Your task to perform on an android device: read, delete, or share a saved page in the chrome app Image 0: 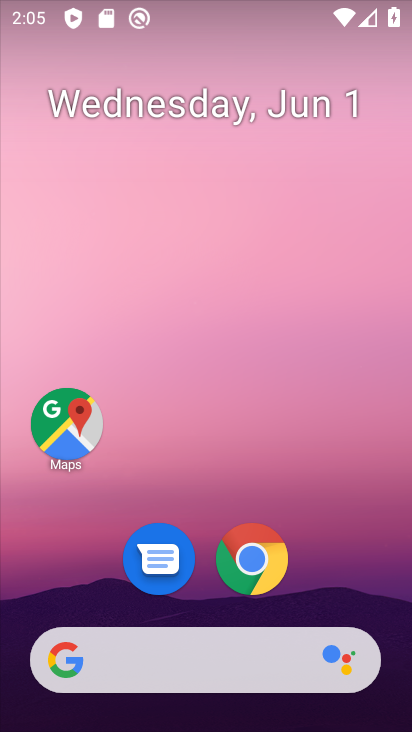
Step 0: click (270, 548)
Your task to perform on an android device: read, delete, or share a saved page in the chrome app Image 1: 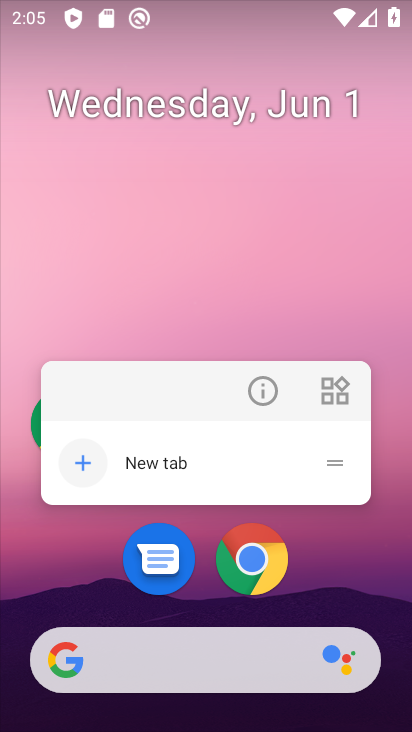
Step 1: click (237, 561)
Your task to perform on an android device: read, delete, or share a saved page in the chrome app Image 2: 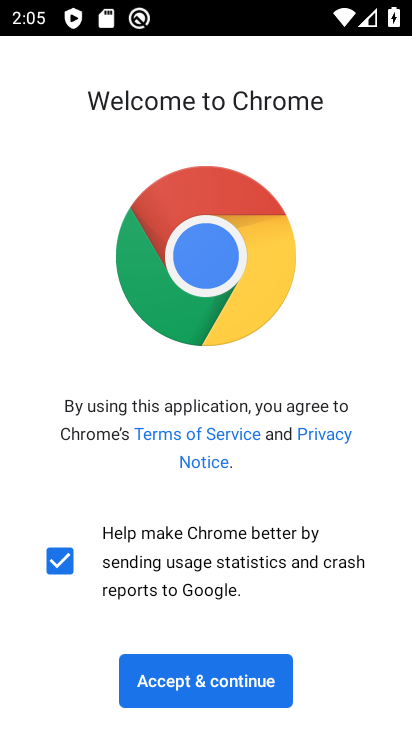
Step 2: click (207, 677)
Your task to perform on an android device: read, delete, or share a saved page in the chrome app Image 3: 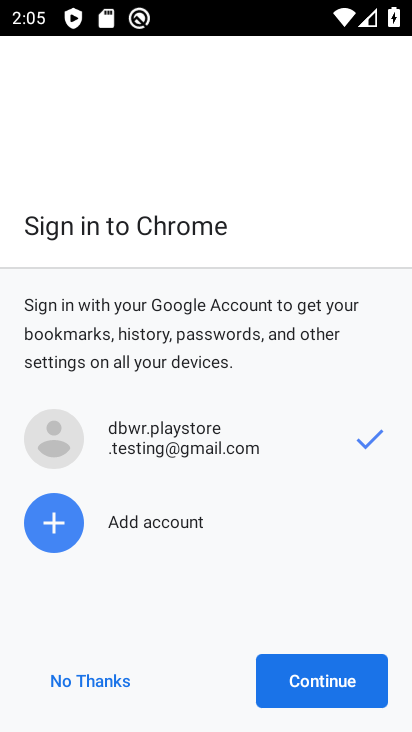
Step 3: click (292, 671)
Your task to perform on an android device: read, delete, or share a saved page in the chrome app Image 4: 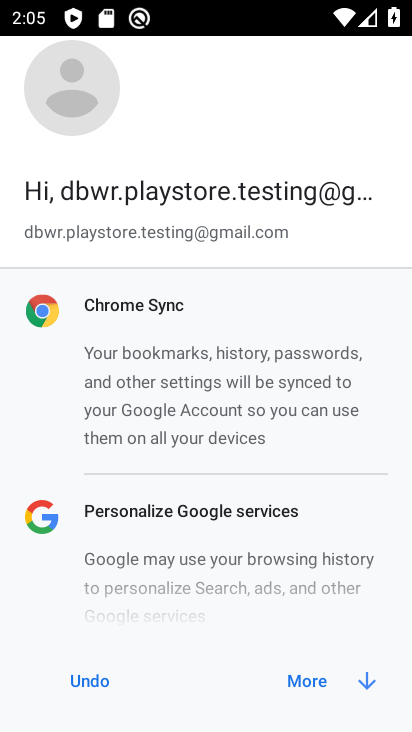
Step 4: click (302, 681)
Your task to perform on an android device: read, delete, or share a saved page in the chrome app Image 5: 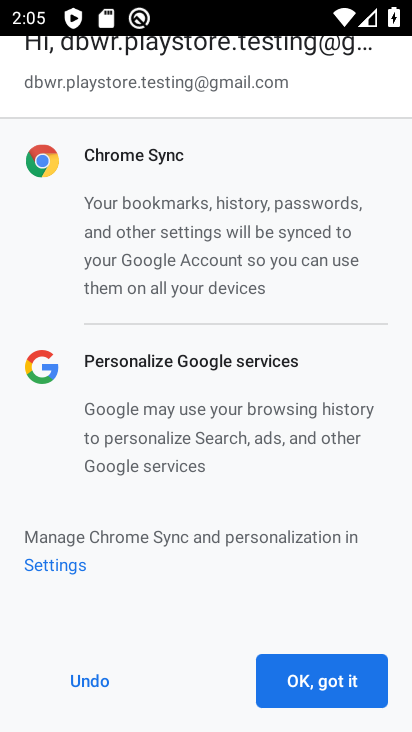
Step 5: click (302, 681)
Your task to perform on an android device: read, delete, or share a saved page in the chrome app Image 6: 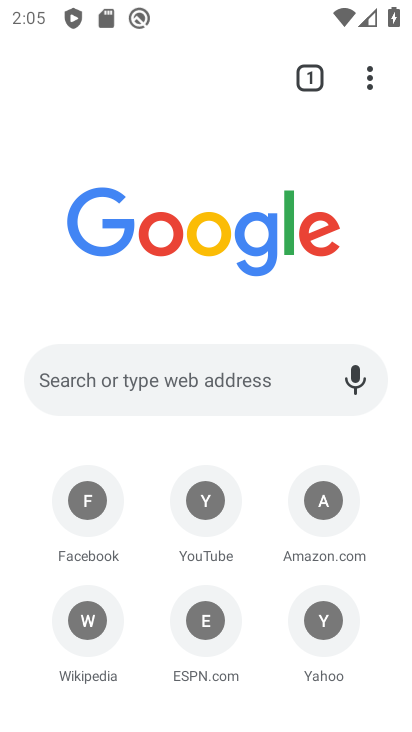
Step 6: drag from (373, 84) to (145, 511)
Your task to perform on an android device: read, delete, or share a saved page in the chrome app Image 7: 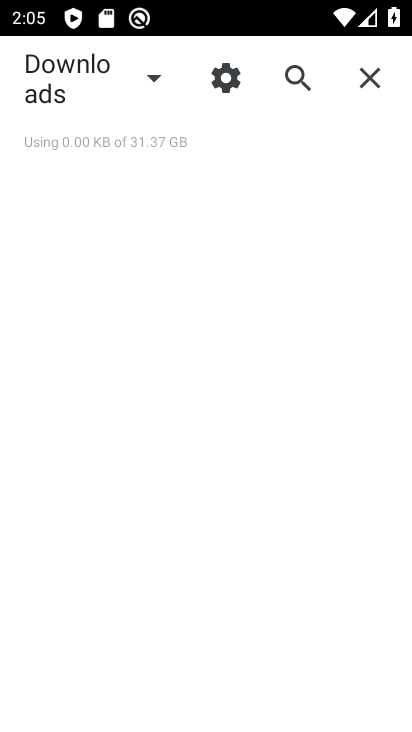
Step 7: click (154, 80)
Your task to perform on an android device: read, delete, or share a saved page in the chrome app Image 8: 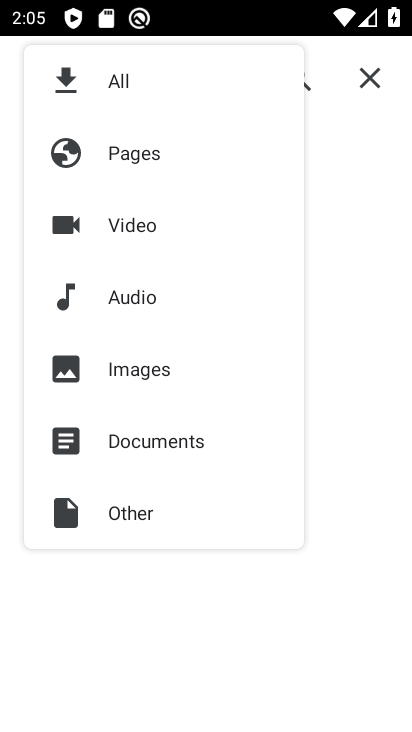
Step 8: click (138, 161)
Your task to perform on an android device: read, delete, or share a saved page in the chrome app Image 9: 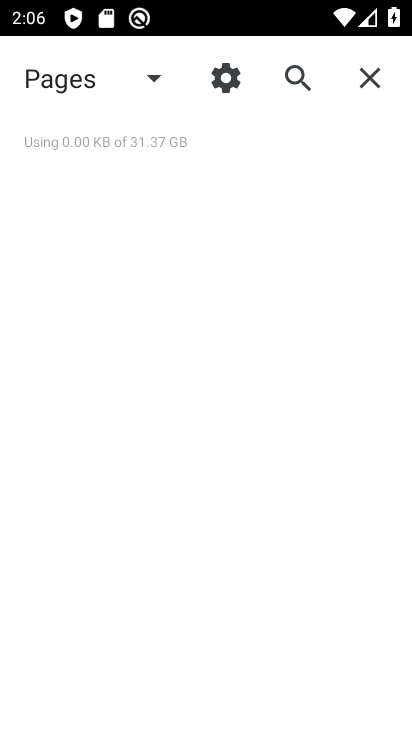
Step 9: click (152, 79)
Your task to perform on an android device: read, delete, or share a saved page in the chrome app Image 10: 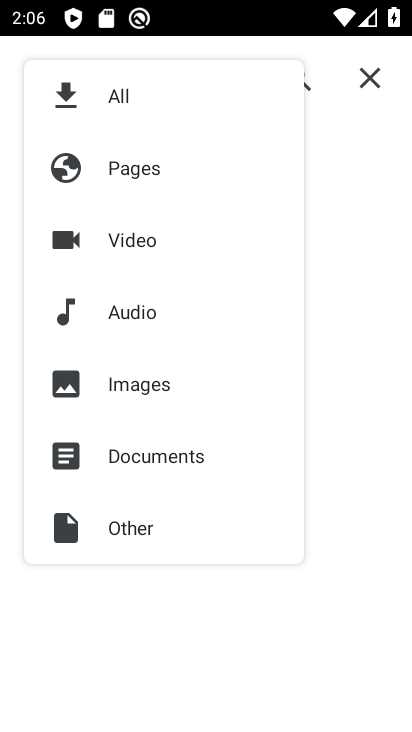
Step 10: task complete